Your task to perform on an android device: allow cookies in the chrome app Image 0: 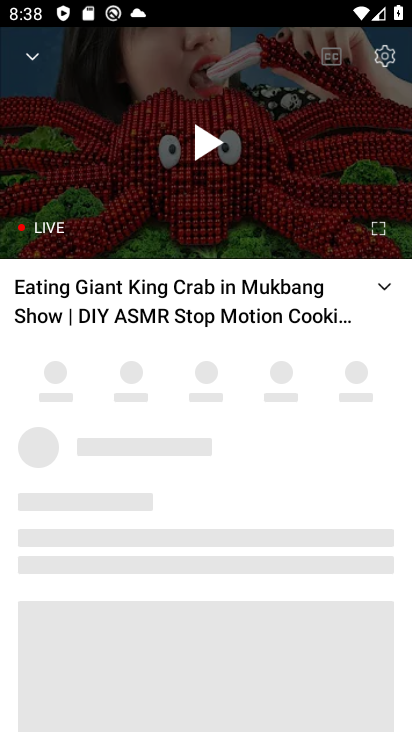
Step 0: press home button
Your task to perform on an android device: allow cookies in the chrome app Image 1: 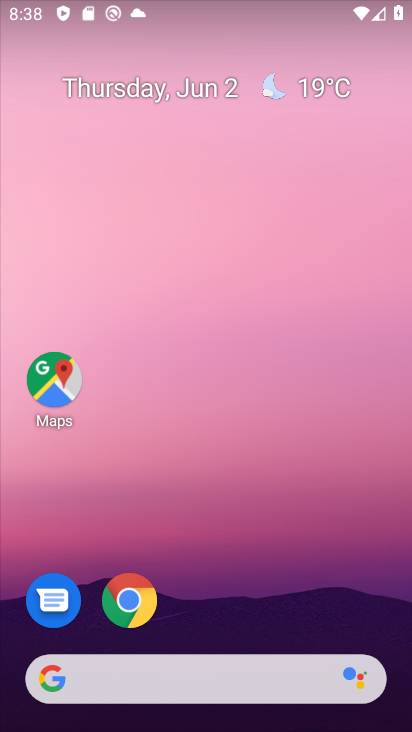
Step 1: click (139, 590)
Your task to perform on an android device: allow cookies in the chrome app Image 2: 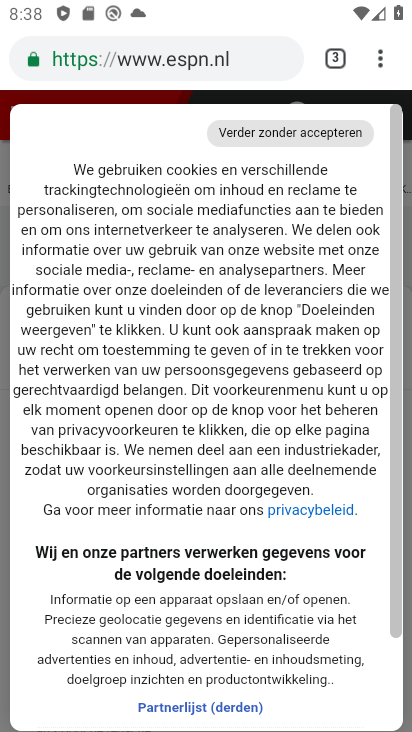
Step 2: drag from (380, 44) to (203, 634)
Your task to perform on an android device: allow cookies in the chrome app Image 3: 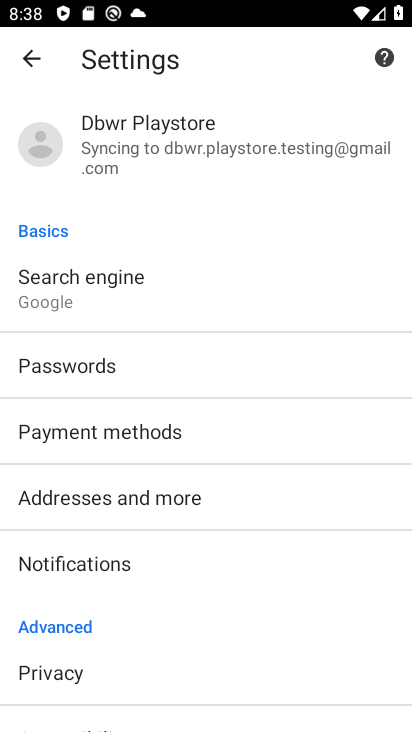
Step 3: drag from (163, 627) to (192, 346)
Your task to perform on an android device: allow cookies in the chrome app Image 4: 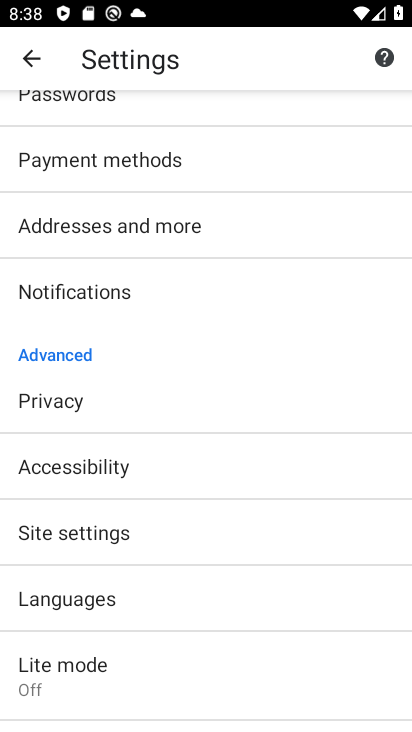
Step 4: click (90, 521)
Your task to perform on an android device: allow cookies in the chrome app Image 5: 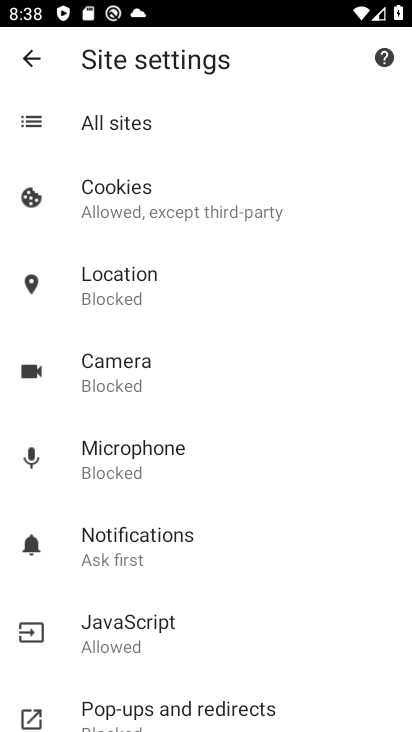
Step 5: click (77, 191)
Your task to perform on an android device: allow cookies in the chrome app Image 6: 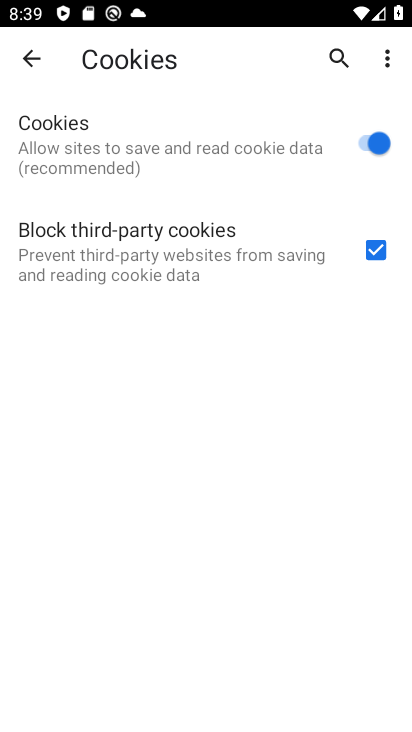
Step 6: task complete